Your task to perform on an android device: toggle wifi Image 0: 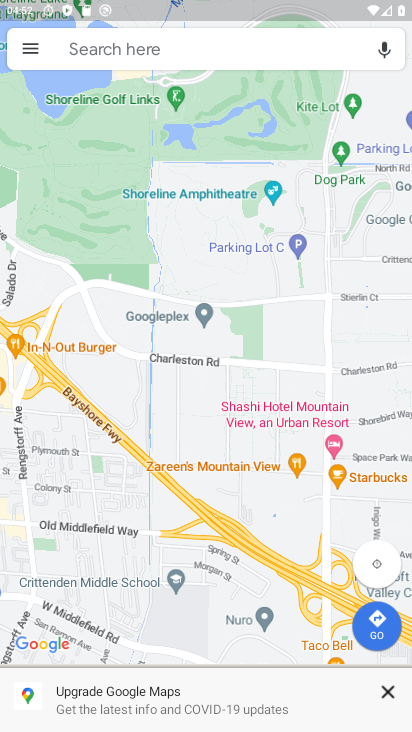
Step 0: drag from (181, 12) to (203, 721)
Your task to perform on an android device: toggle wifi Image 1: 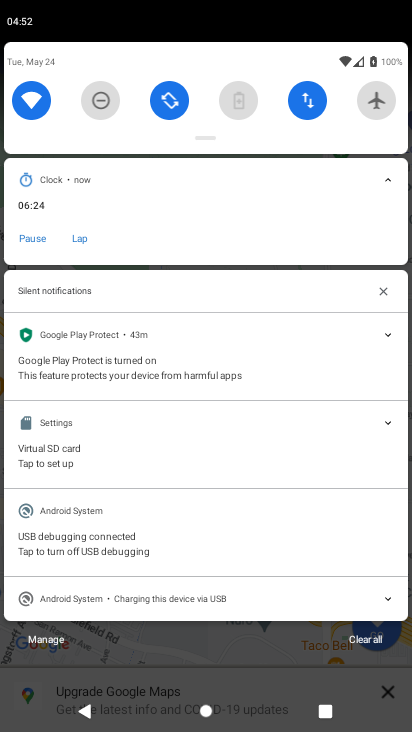
Step 1: click (41, 96)
Your task to perform on an android device: toggle wifi Image 2: 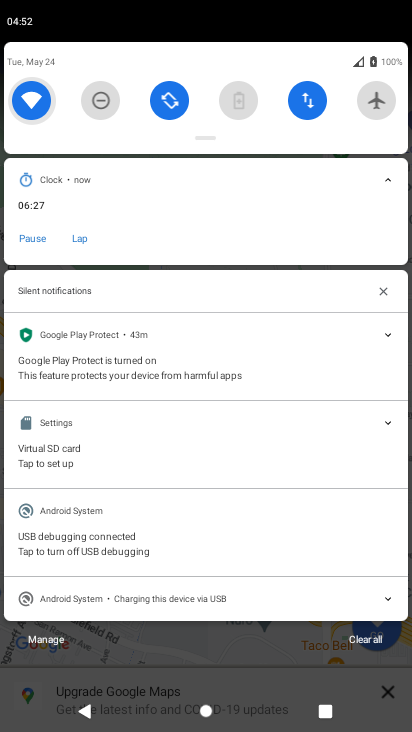
Step 2: click (41, 96)
Your task to perform on an android device: toggle wifi Image 3: 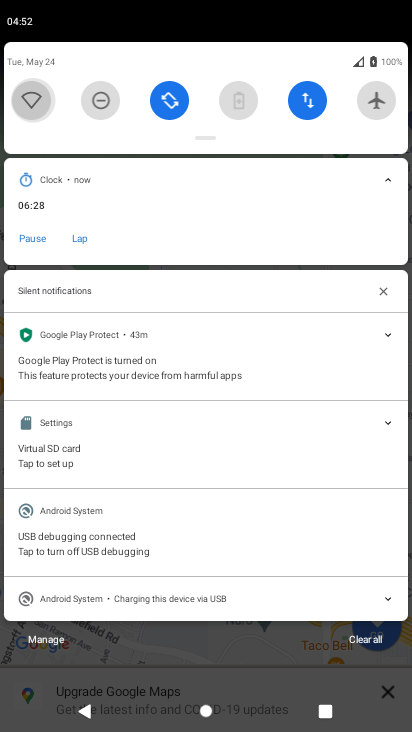
Step 3: click (41, 96)
Your task to perform on an android device: toggle wifi Image 4: 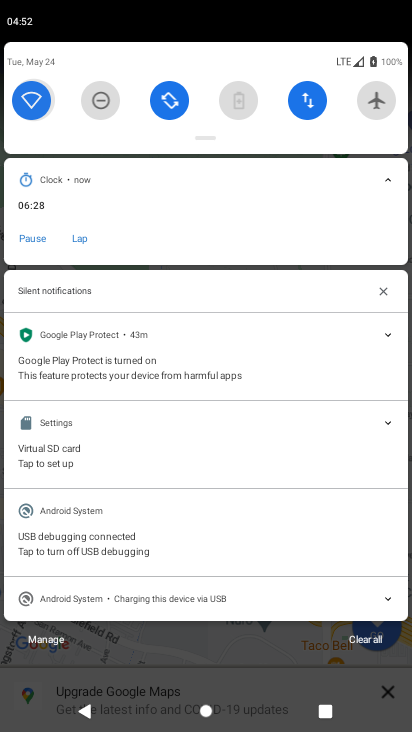
Step 4: click (41, 96)
Your task to perform on an android device: toggle wifi Image 5: 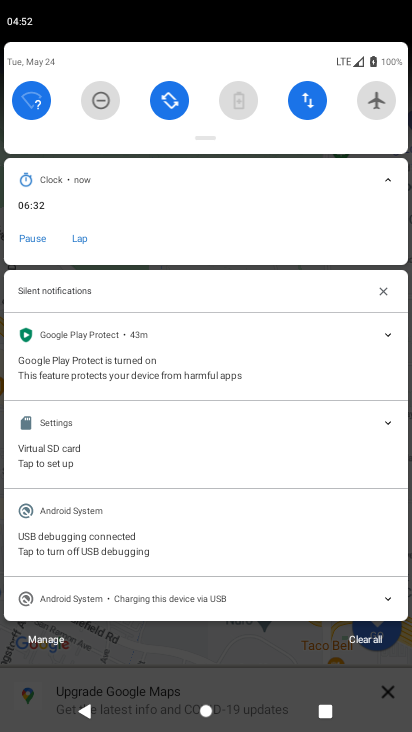
Step 5: task complete